Your task to perform on an android device: toggle show notifications on the lock screen Image 0: 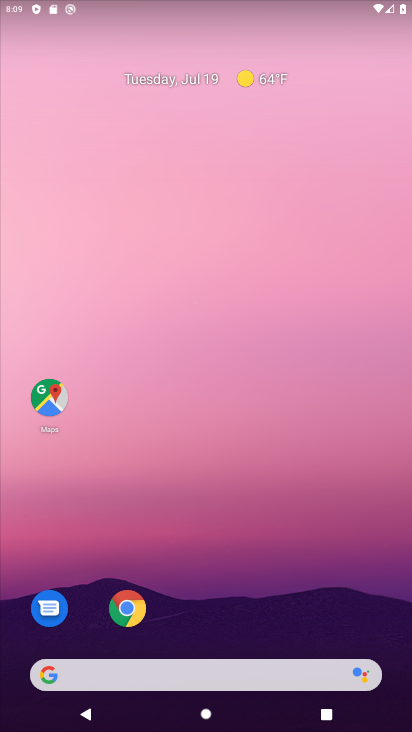
Step 0: drag from (187, 672) to (195, 78)
Your task to perform on an android device: toggle show notifications on the lock screen Image 1: 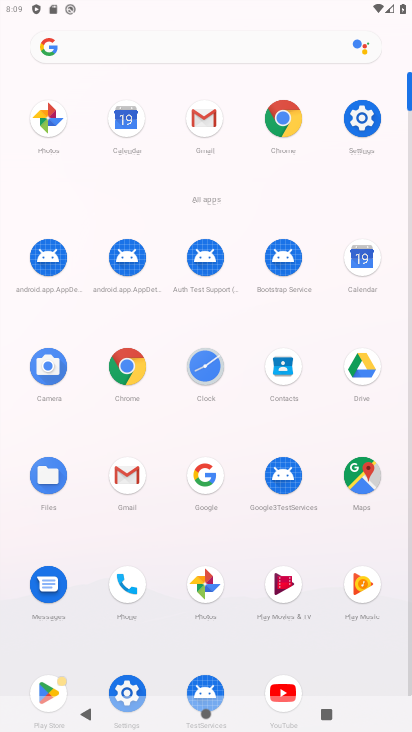
Step 1: click (355, 122)
Your task to perform on an android device: toggle show notifications on the lock screen Image 2: 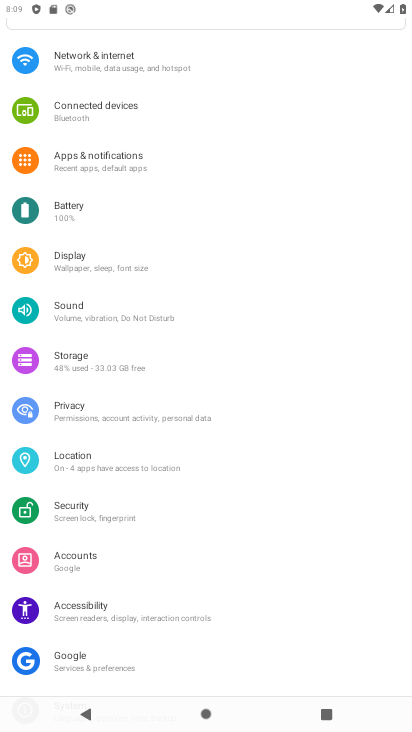
Step 2: click (137, 162)
Your task to perform on an android device: toggle show notifications on the lock screen Image 3: 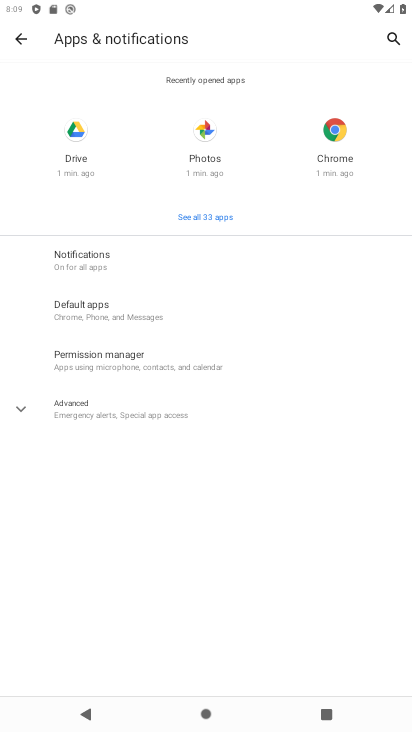
Step 3: click (102, 259)
Your task to perform on an android device: toggle show notifications on the lock screen Image 4: 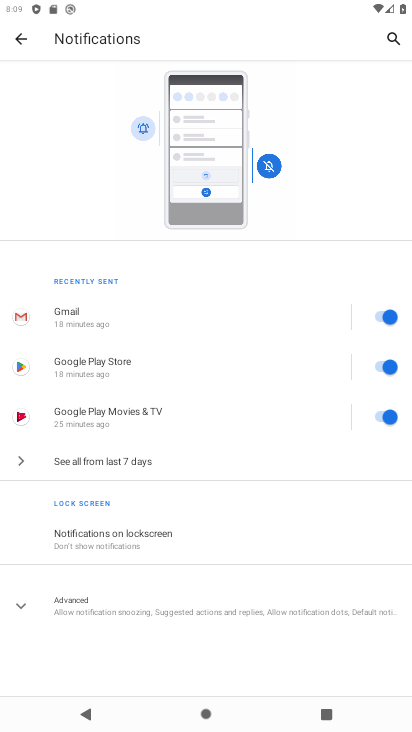
Step 4: click (116, 536)
Your task to perform on an android device: toggle show notifications on the lock screen Image 5: 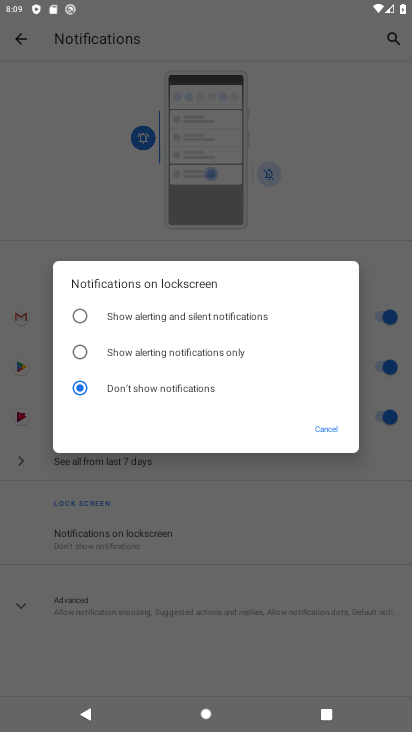
Step 5: click (143, 320)
Your task to perform on an android device: toggle show notifications on the lock screen Image 6: 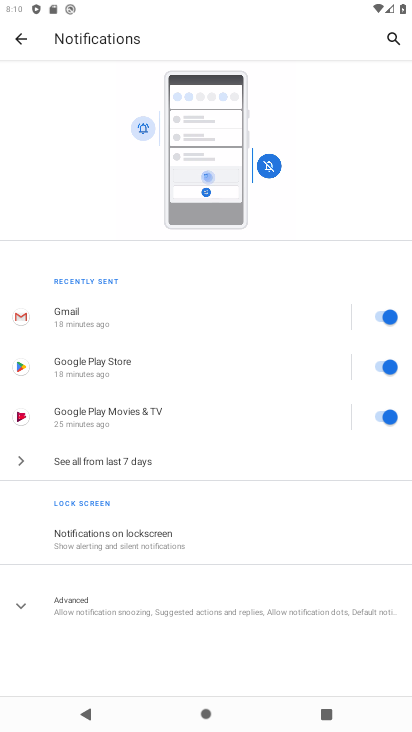
Step 6: task complete